Your task to perform on an android device: View the shopping cart on bestbuy.com. Search for logitech g pro on bestbuy.com, select the first entry, add it to the cart, then select checkout. Image 0: 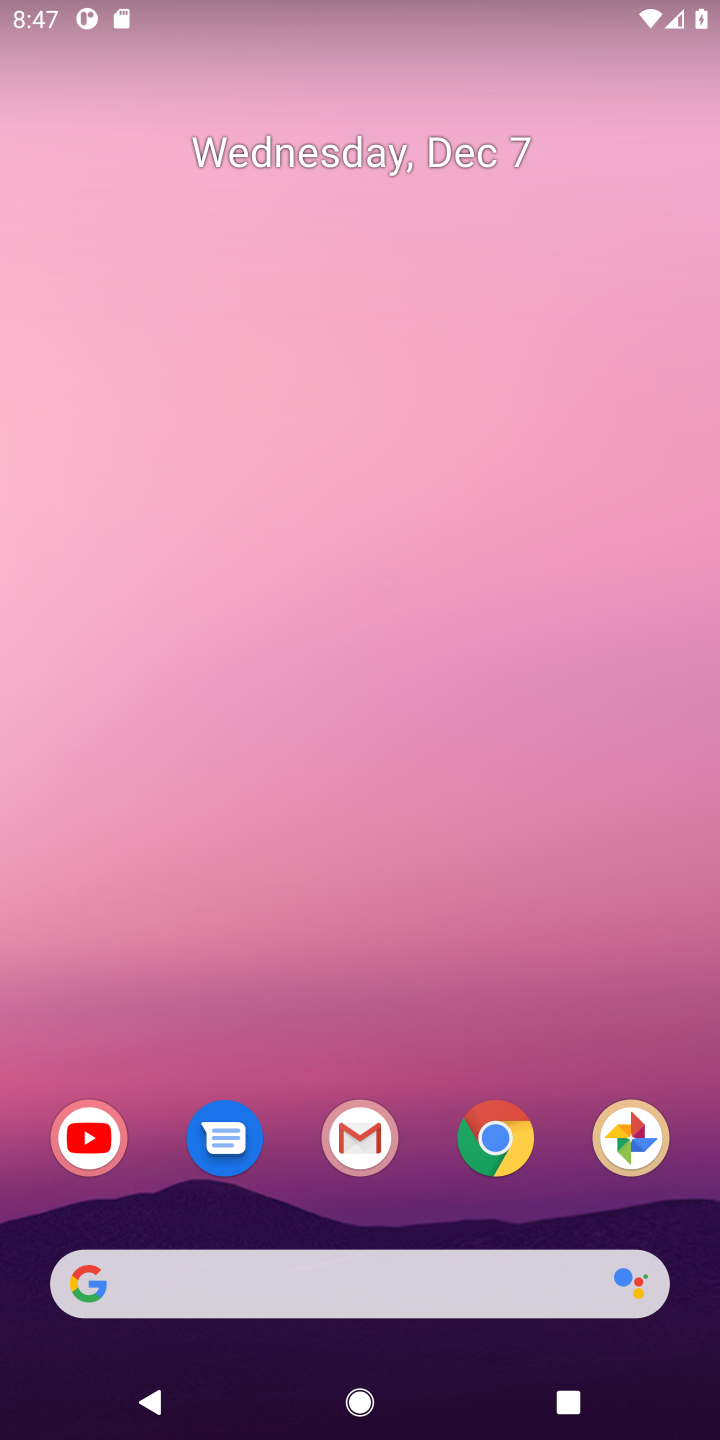
Step 0: press home button
Your task to perform on an android device: View the shopping cart on bestbuy.com. Search for logitech g pro on bestbuy.com, select the first entry, add it to the cart, then select checkout. Image 1: 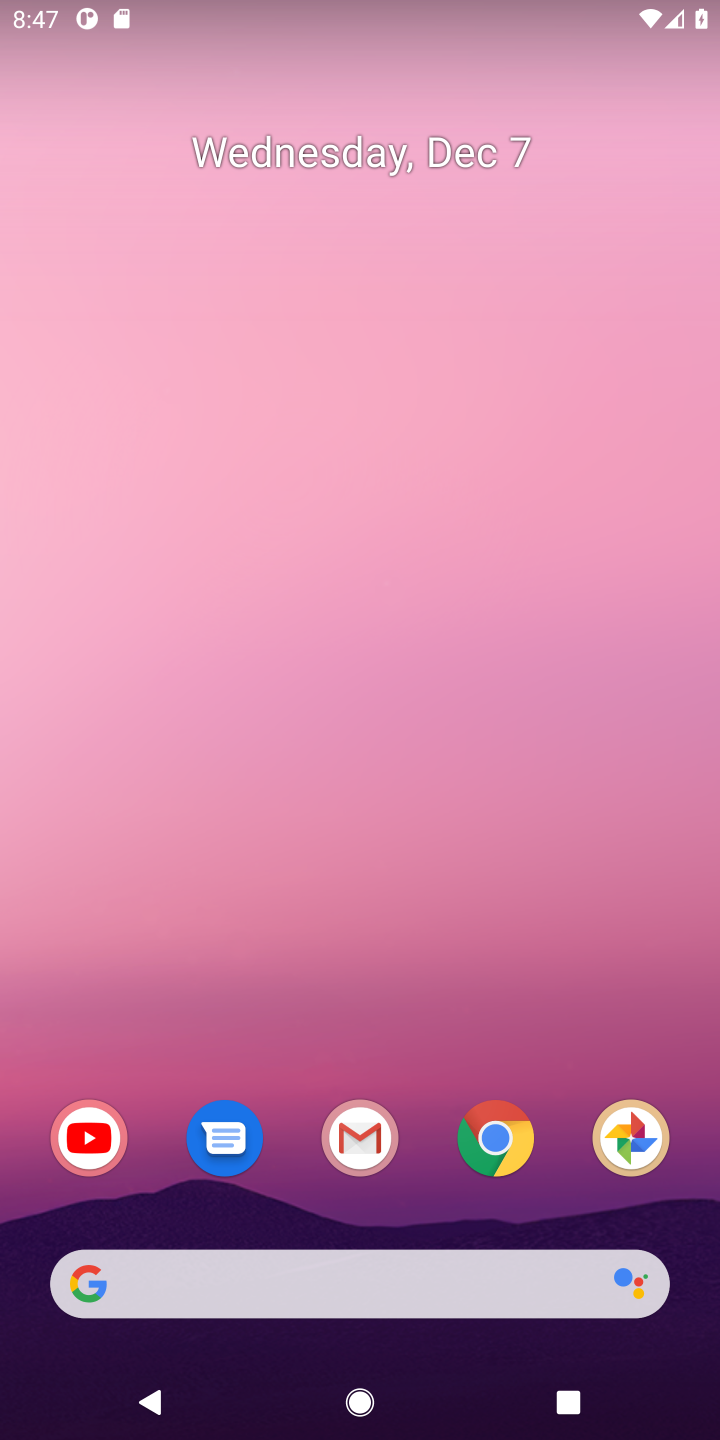
Step 1: click (136, 1286)
Your task to perform on an android device: View the shopping cart on bestbuy.com. Search for logitech g pro on bestbuy.com, select the first entry, add it to the cart, then select checkout. Image 2: 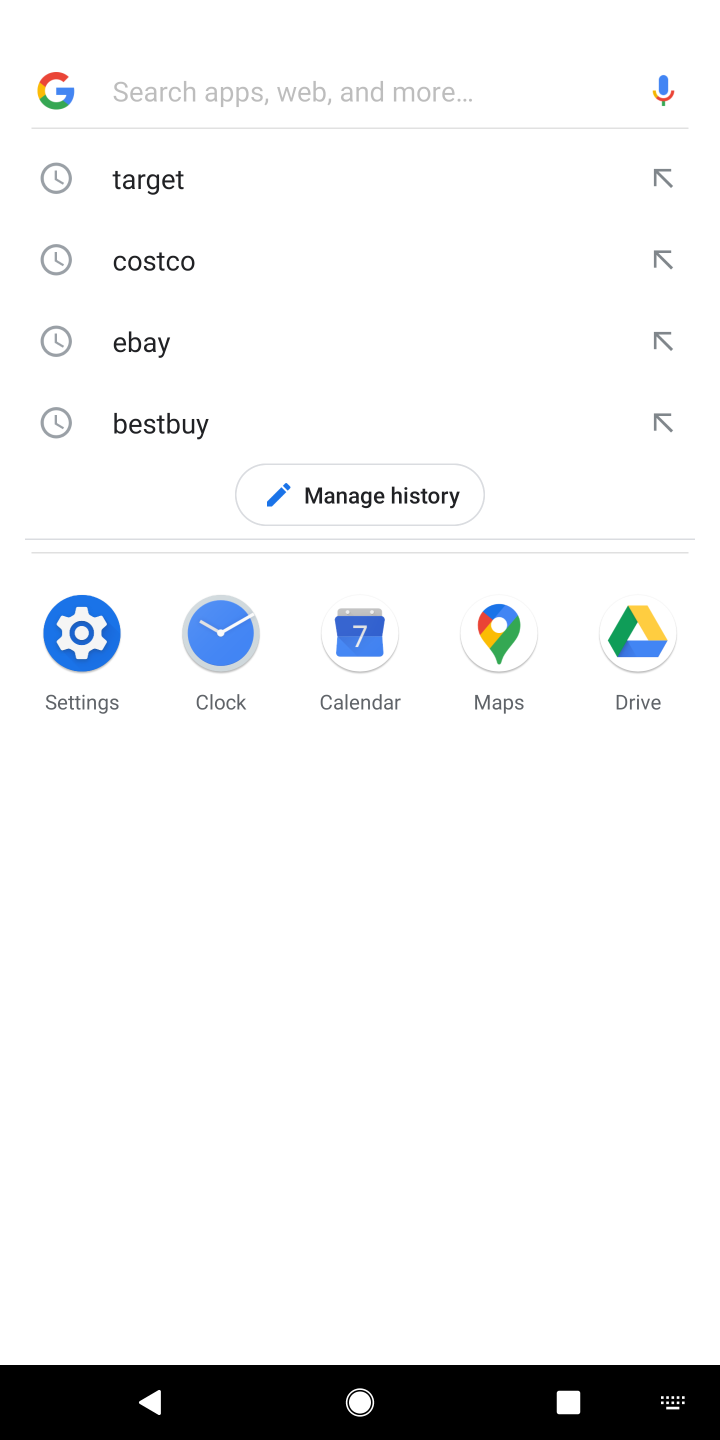
Step 2: press enter
Your task to perform on an android device: View the shopping cart on bestbuy.com. Search for logitech g pro on bestbuy.com, select the first entry, add it to the cart, then select checkout. Image 3: 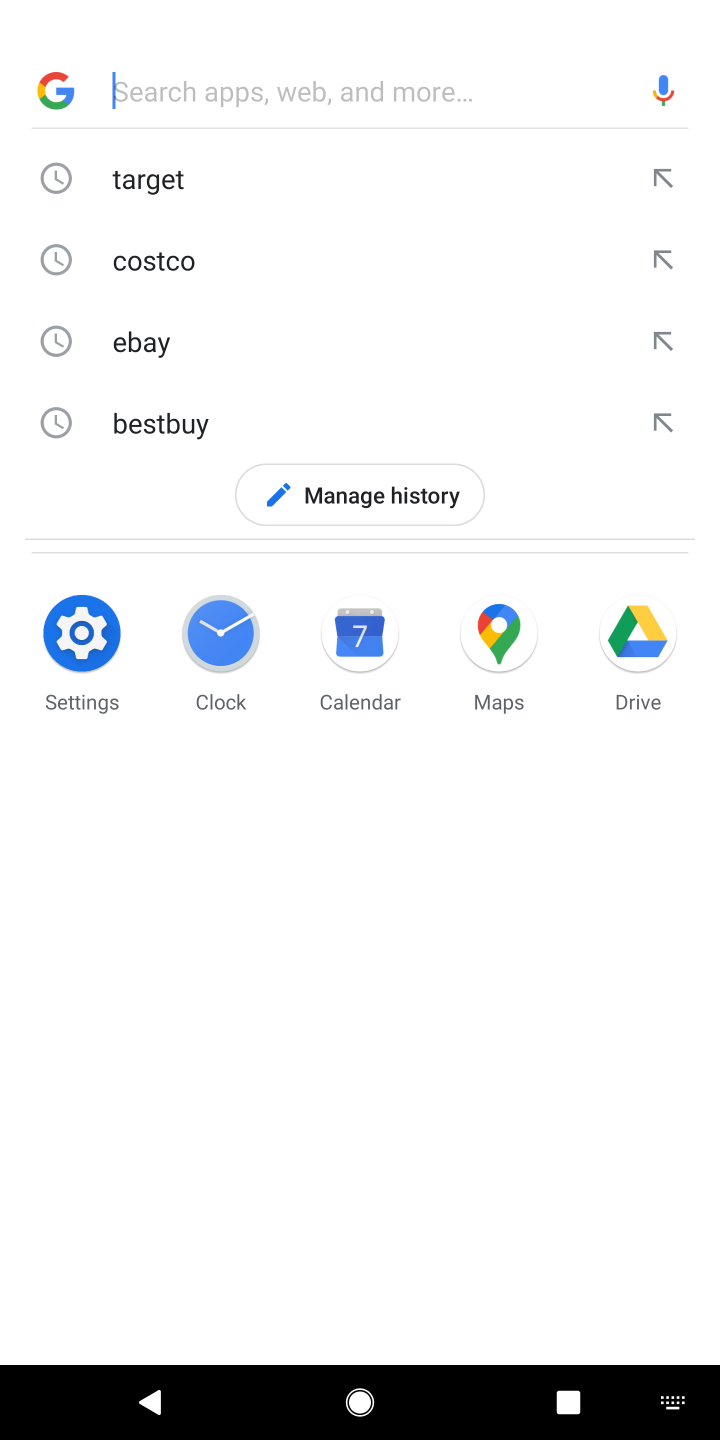
Step 3: type "bestbuy.com"
Your task to perform on an android device: View the shopping cart on bestbuy.com. Search for logitech g pro on bestbuy.com, select the first entry, add it to the cart, then select checkout. Image 4: 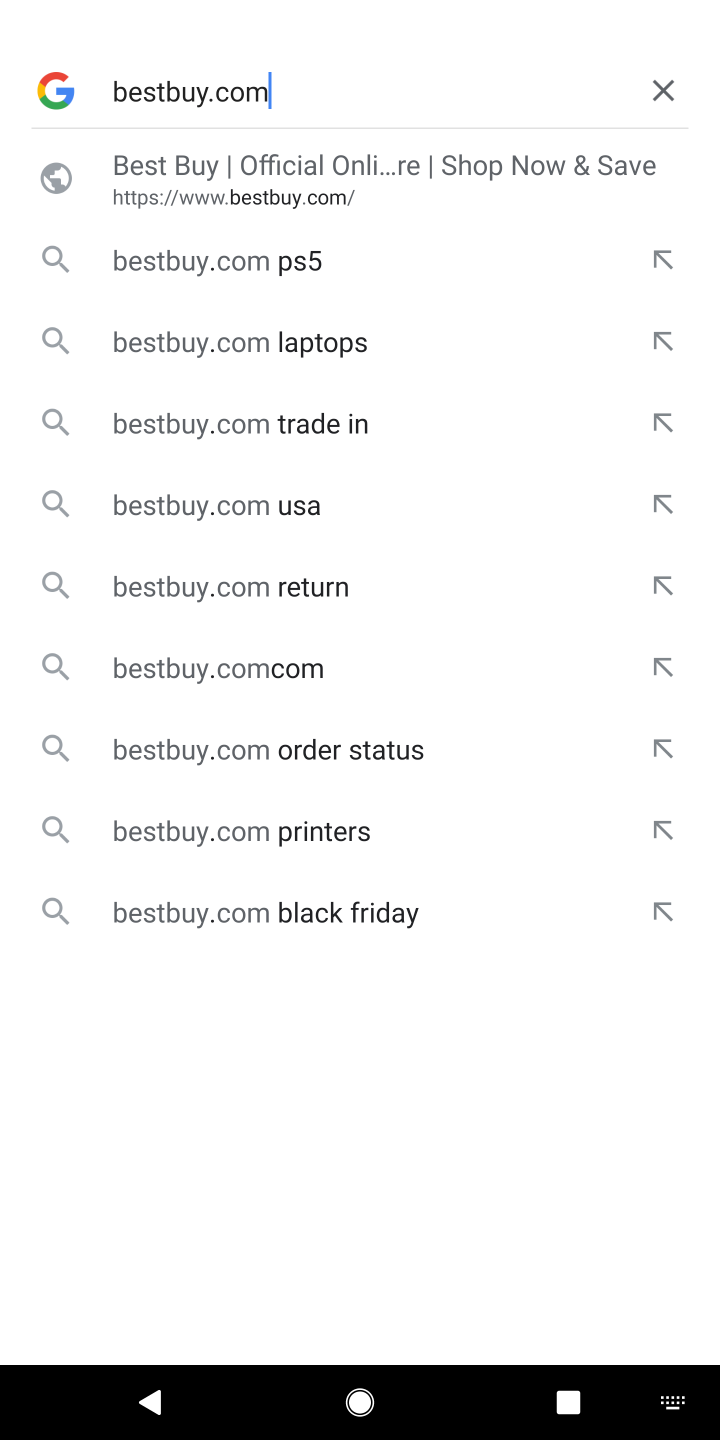
Step 4: press enter
Your task to perform on an android device: View the shopping cart on bestbuy.com. Search for logitech g pro on bestbuy.com, select the first entry, add it to the cart, then select checkout. Image 5: 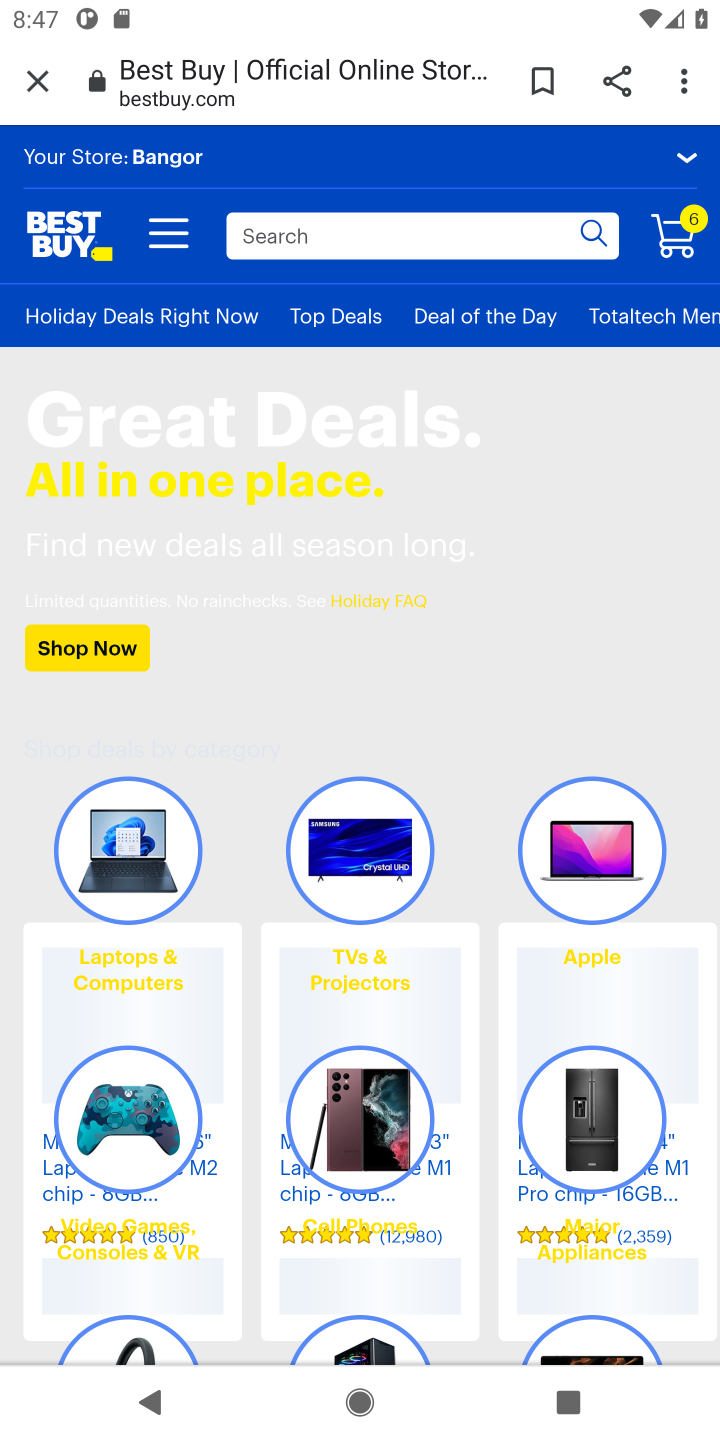
Step 5: click (674, 227)
Your task to perform on an android device: View the shopping cart on bestbuy.com. Search for logitech g pro on bestbuy.com, select the first entry, add it to the cart, then select checkout. Image 6: 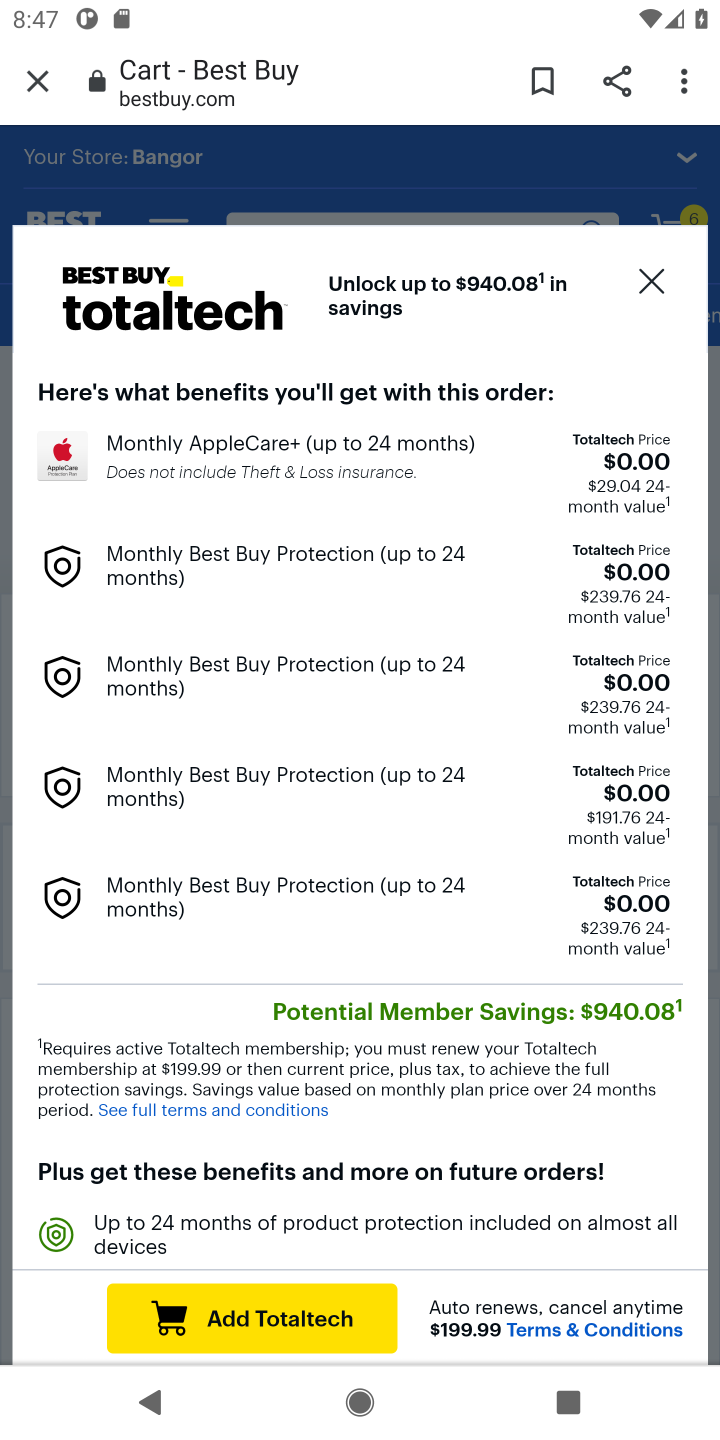
Step 6: click (652, 281)
Your task to perform on an android device: View the shopping cart on bestbuy.com. Search for logitech g pro on bestbuy.com, select the first entry, add it to the cart, then select checkout. Image 7: 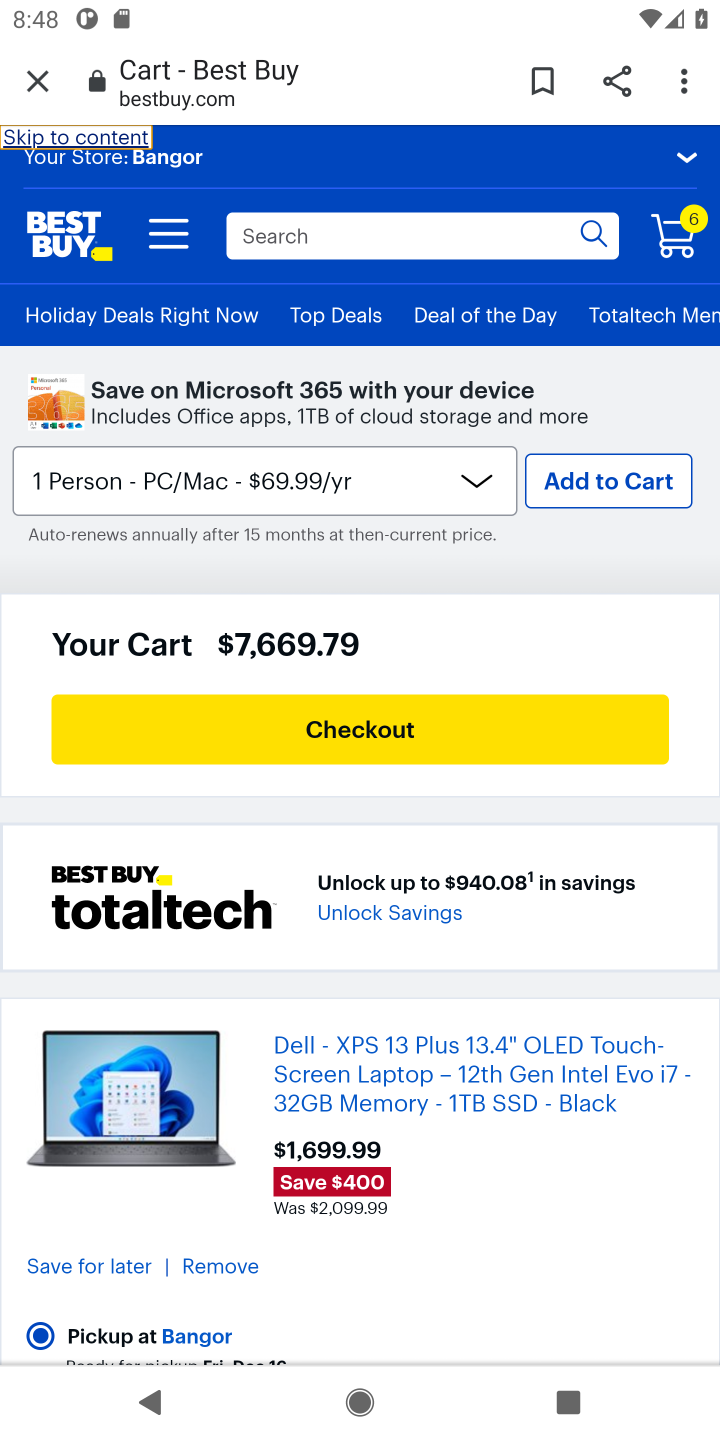
Step 7: click (392, 233)
Your task to perform on an android device: View the shopping cart on bestbuy.com. Search for logitech g pro on bestbuy.com, select the first entry, add it to the cart, then select checkout. Image 8: 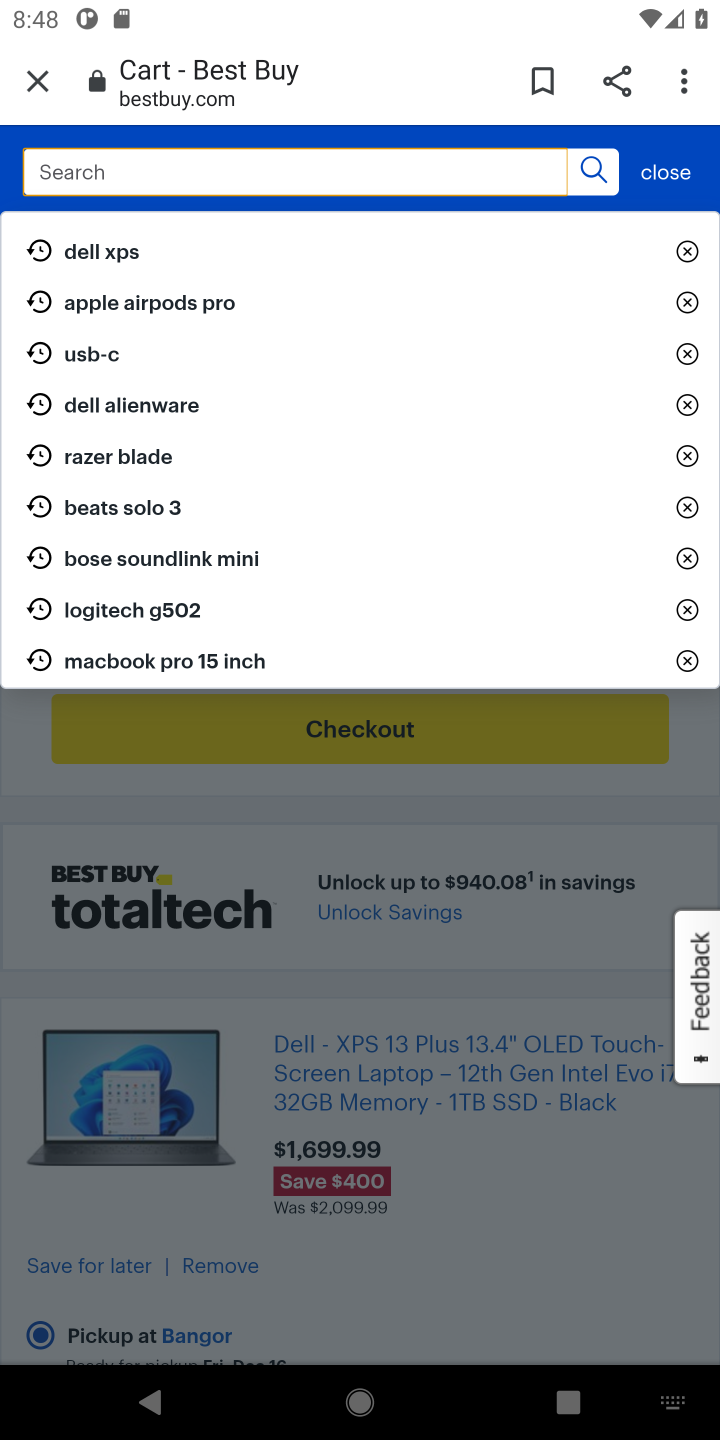
Step 8: press enter
Your task to perform on an android device: View the shopping cart on bestbuy.com. Search for logitech g pro on bestbuy.com, select the first entry, add it to the cart, then select checkout. Image 9: 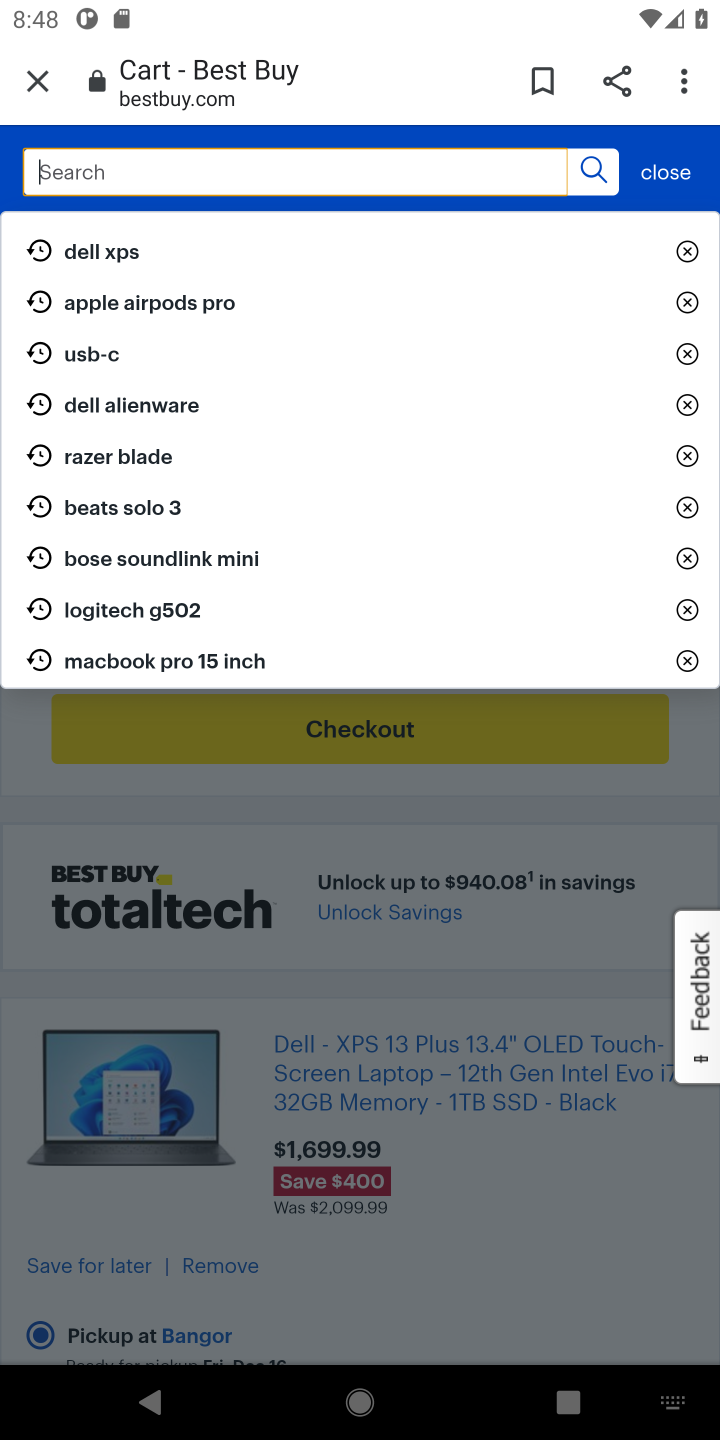
Step 9: type "logitech g pro"
Your task to perform on an android device: View the shopping cart on bestbuy.com. Search for logitech g pro on bestbuy.com, select the first entry, add it to the cart, then select checkout. Image 10: 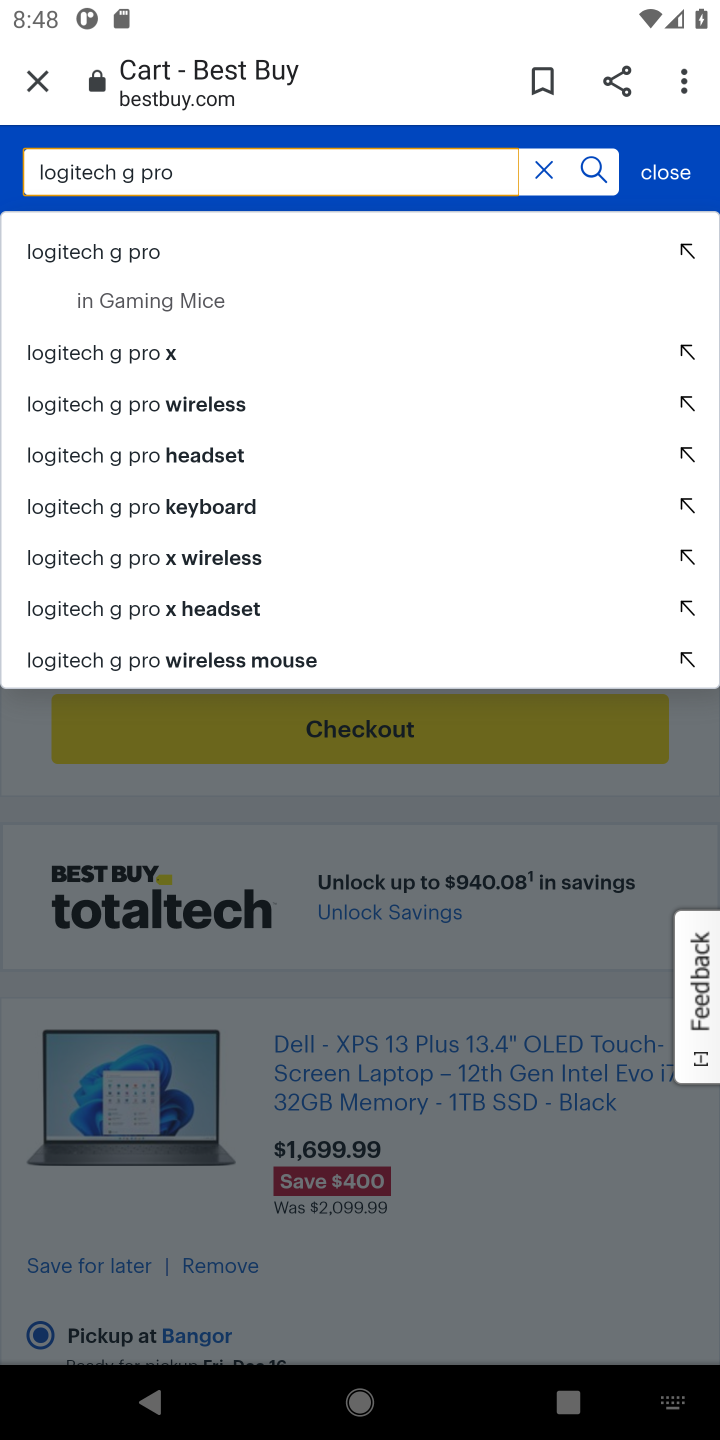
Step 10: press enter
Your task to perform on an android device: View the shopping cart on bestbuy.com. Search for logitech g pro on bestbuy.com, select the first entry, add it to the cart, then select checkout. Image 11: 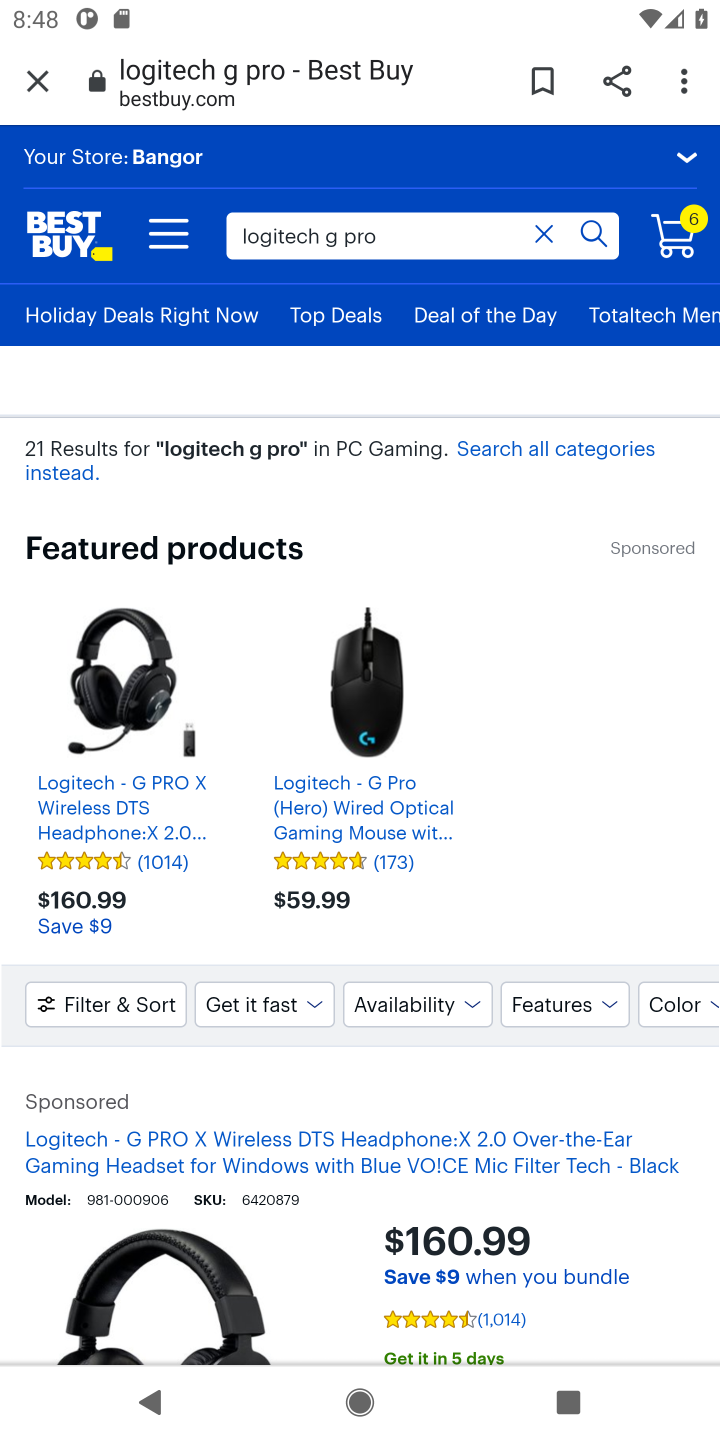
Step 11: drag from (434, 1088) to (507, 474)
Your task to perform on an android device: View the shopping cart on bestbuy.com. Search for logitech g pro on bestbuy.com, select the first entry, add it to the cart, then select checkout. Image 12: 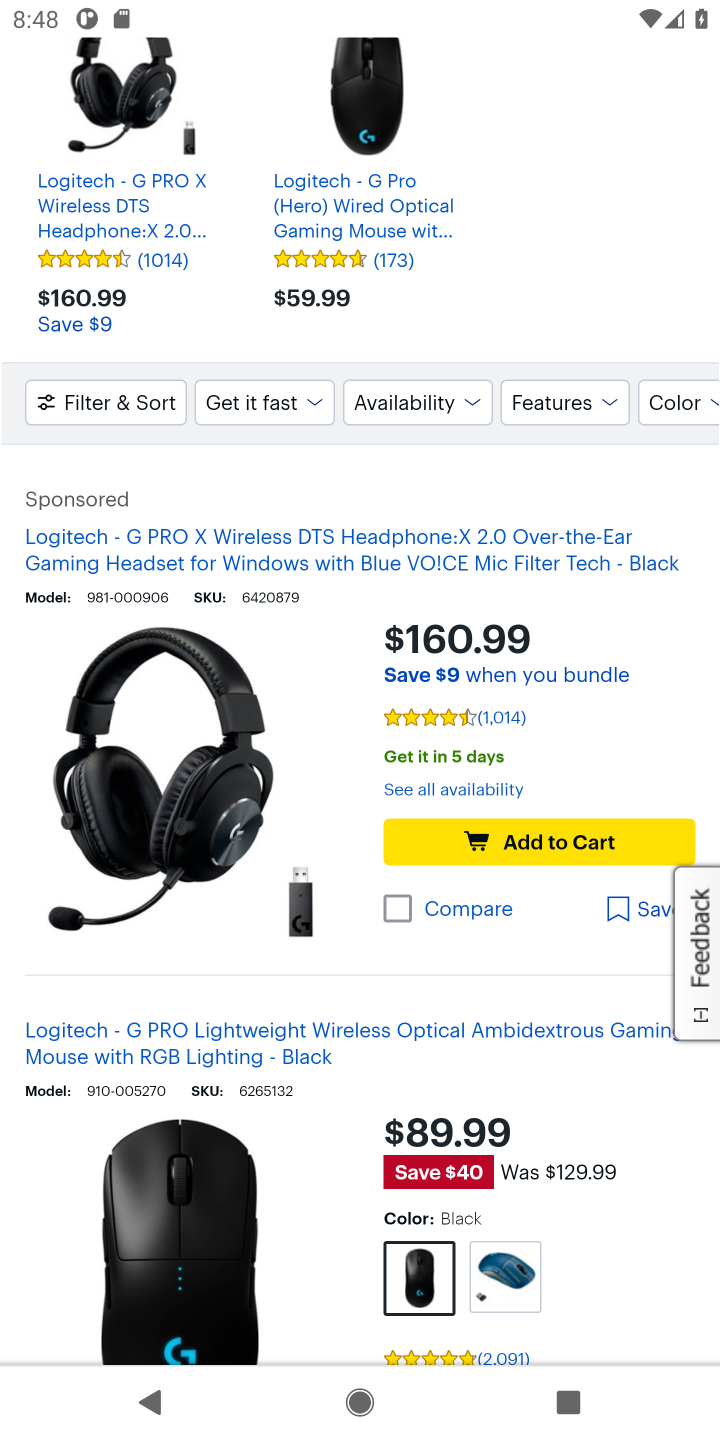
Step 12: click (535, 846)
Your task to perform on an android device: View the shopping cart on bestbuy.com. Search for logitech g pro on bestbuy.com, select the first entry, add it to the cart, then select checkout. Image 13: 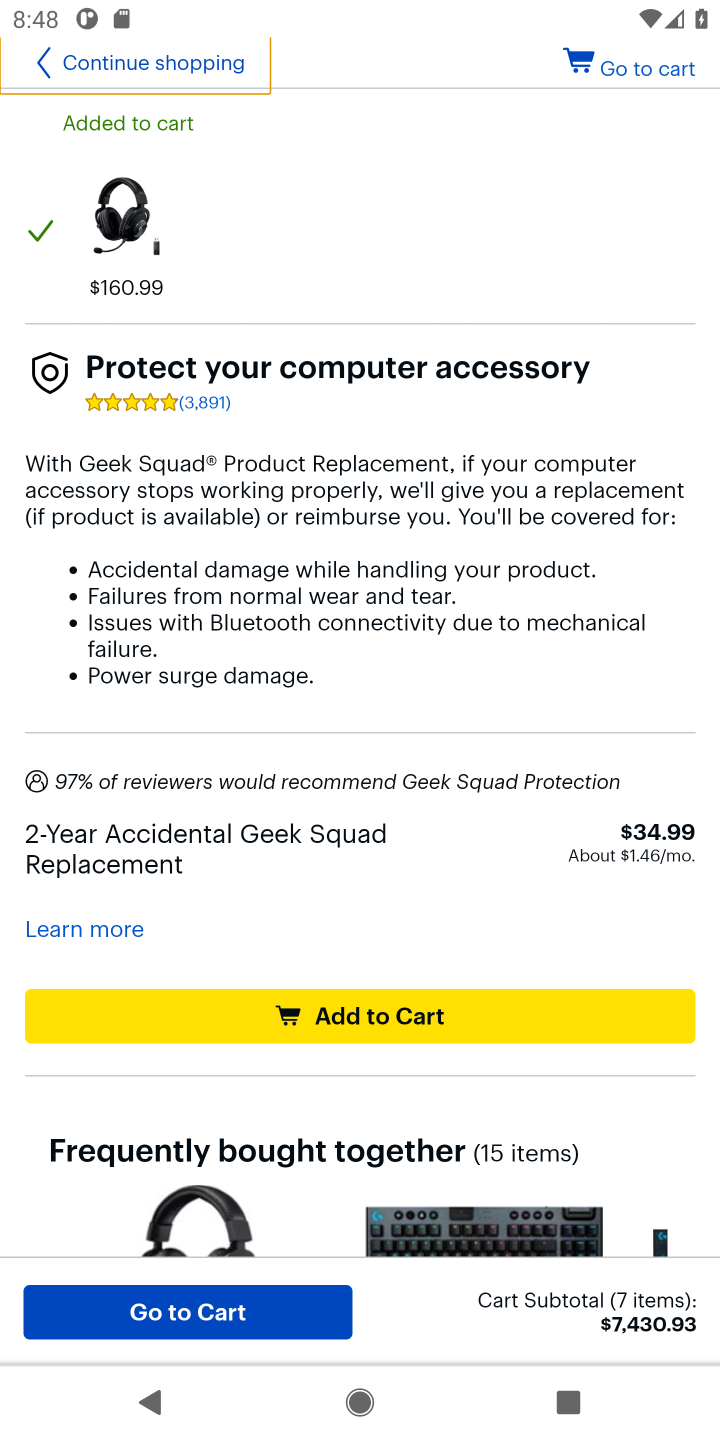
Step 13: task complete